Your task to perform on an android device: toggle notification dots Image 0: 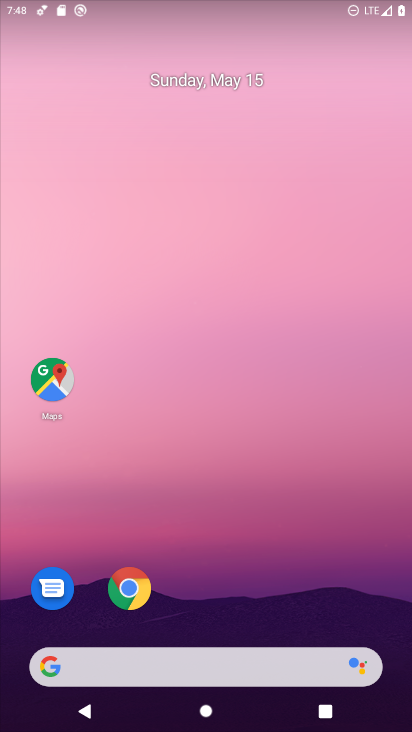
Step 0: drag from (336, 592) to (258, 123)
Your task to perform on an android device: toggle notification dots Image 1: 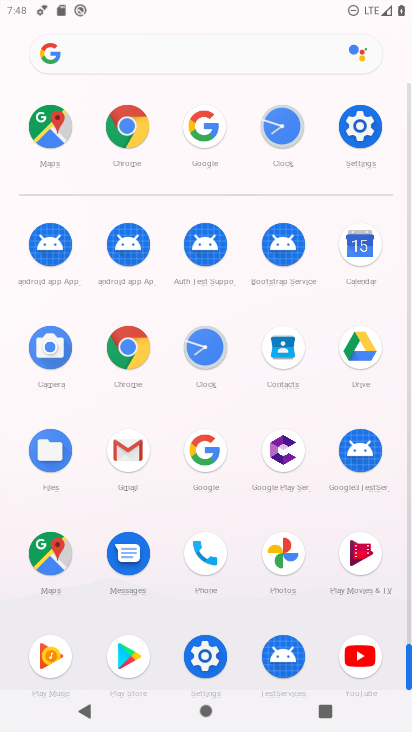
Step 1: click (209, 645)
Your task to perform on an android device: toggle notification dots Image 2: 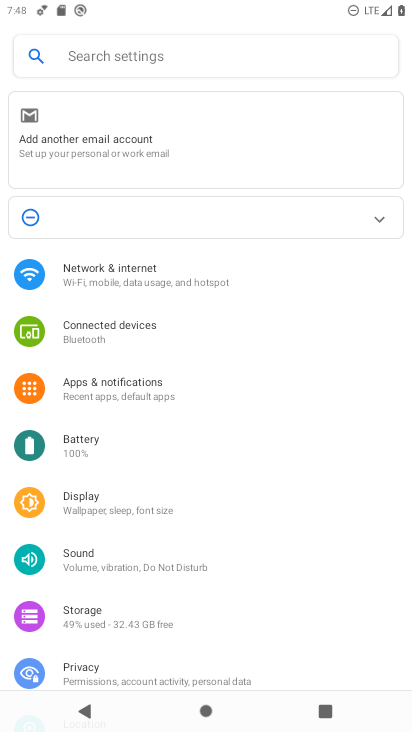
Step 2: click (178, 404)
Your task to perform on an android device: toggle notification dots Image 3: 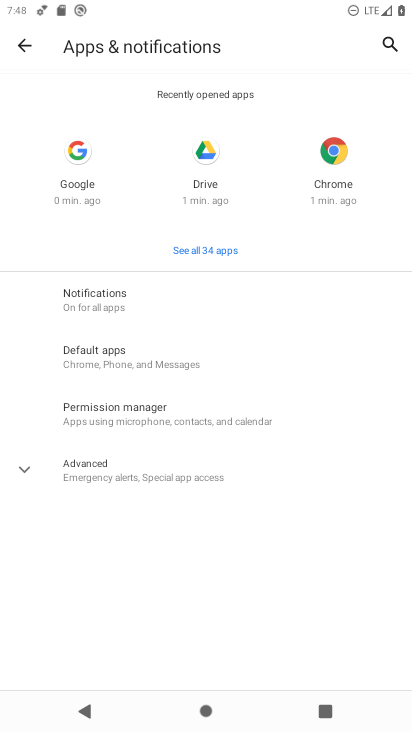
Step 3: click (164, 315)
Your task to perform on an android device: toggle notification dots Image 4: 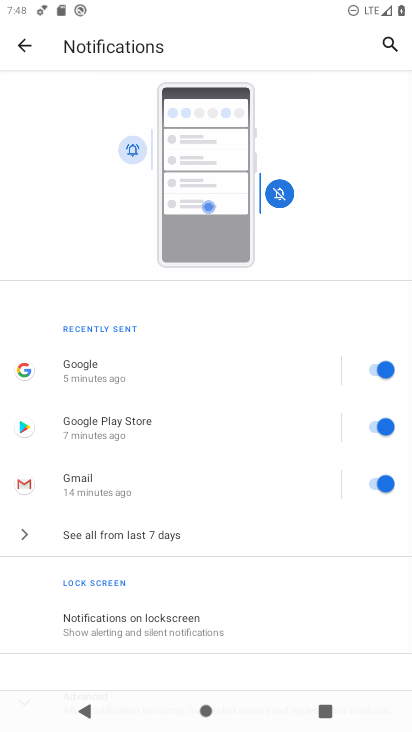
Step 4: drag from (170, 631) to (147, 196)
Your task to perform on an android device: toggle notification dots Image 5: 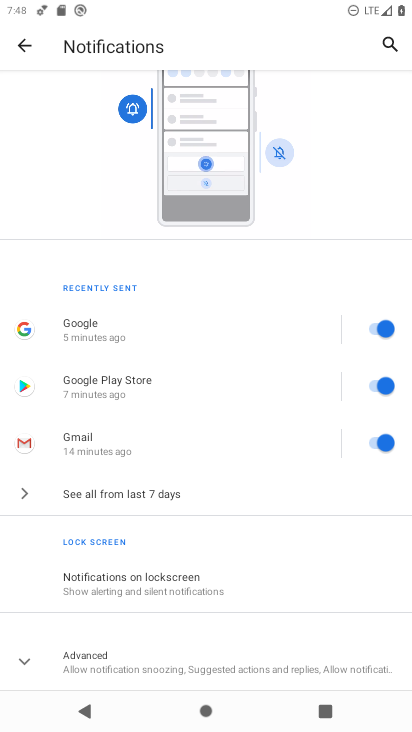
Step 5: click (76, 667)
Your task to perform on an android device: toggle notification dots Image 6: 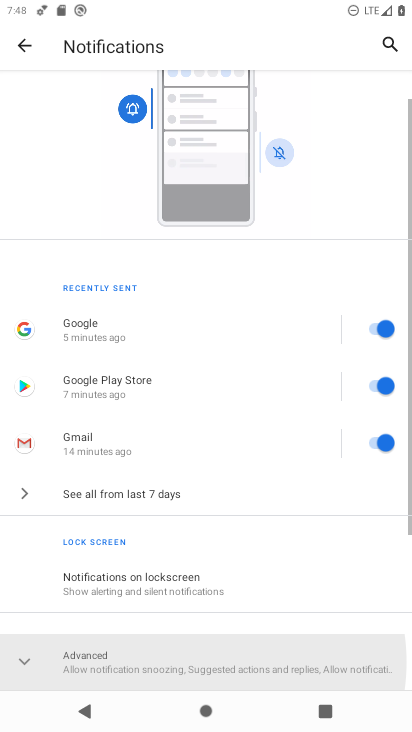
Step 6: drag from (106, 658) to (113, 111)
Your task to perform on an android device: toggle notification dots Image 7: 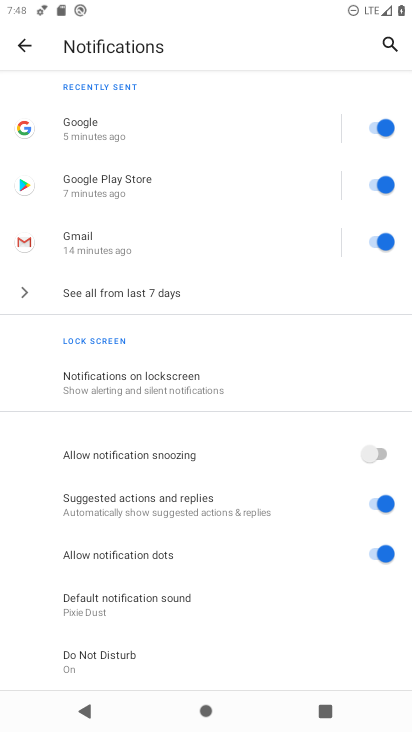
Step 7: click (324, 556)
Your task to perform on an android device: toggle notification dots Image 8: 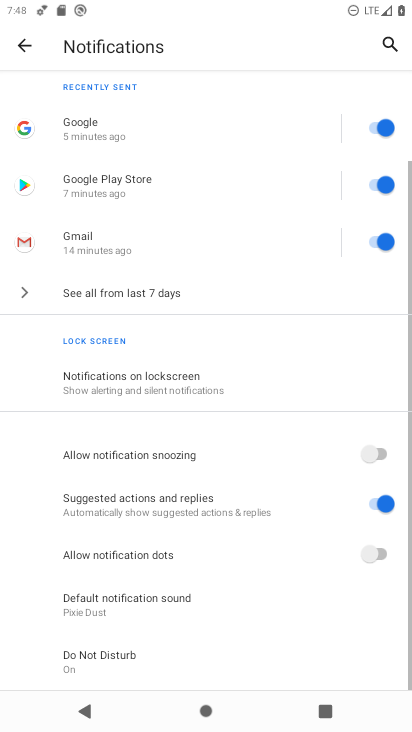
Step 8: task complete